Your task to perform on an android device: What's the weather today? Image 0: 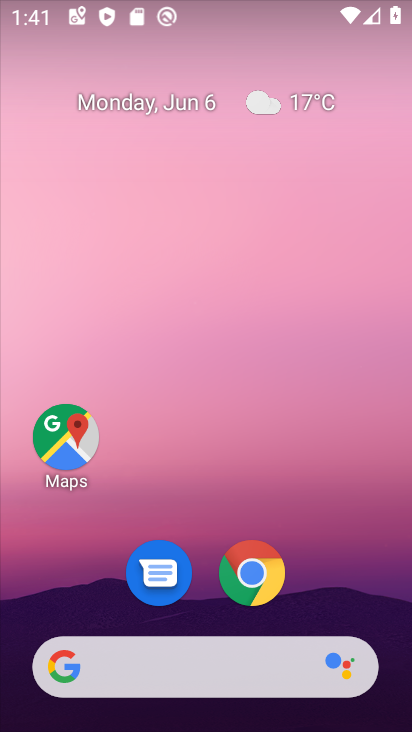
Step 0: click (261, 98)
Your task to perform on an android device: What's the weather today? Image 1: 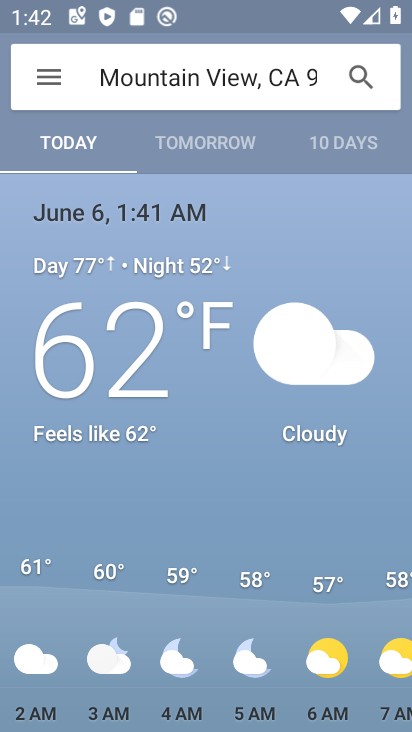
Step 1: task complete